Your task to perform on an android device: Open Google Maps and go to "Timeline" Image 0: 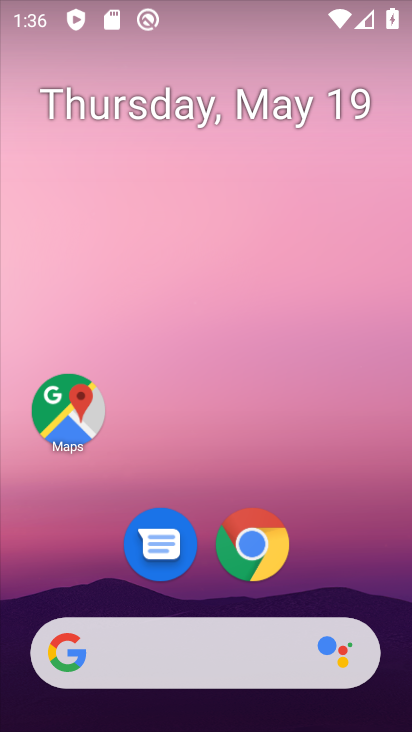
Step 0: drag from (308, 699) to (331, 267)
Your task to perform on an android device: Open Google Maps and go to "Timeline" Image 1: 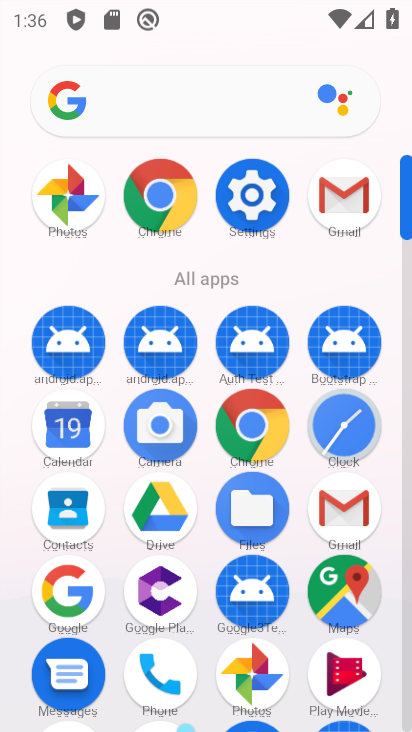
Step 1: click (328, 594)
Your task to perform on an android device: Open Google Maps and go to "Timeline" Image 2: 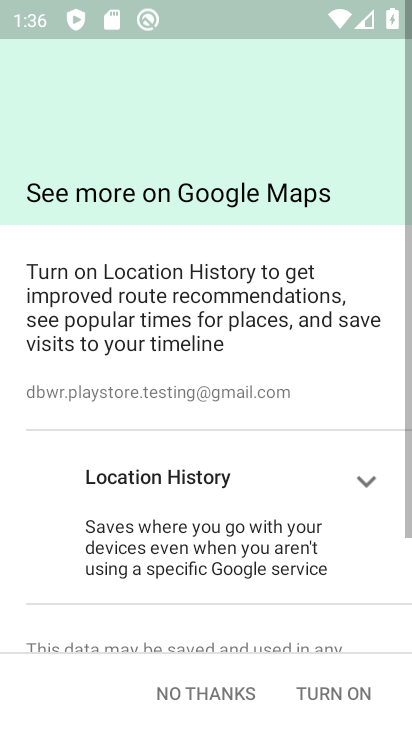
Step 2: click (47, 92)
Your task to perform on an android device: Open Google Maps and go to "Timeline" Image 3: 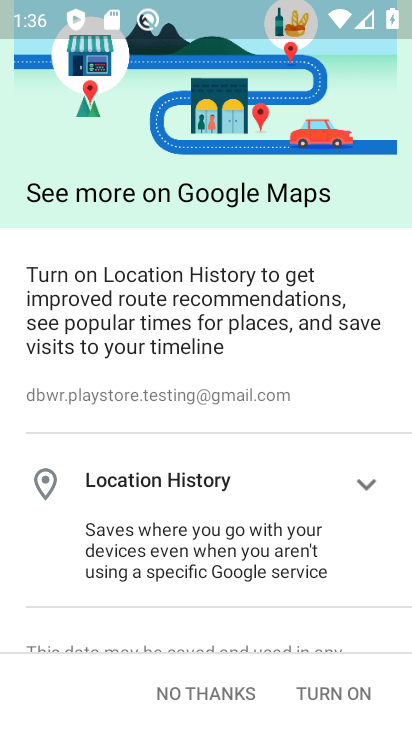
Step 3: click (185, 683)
Your task to perform on an android device: Open Google Maps and go to "Timeline" Image 4: 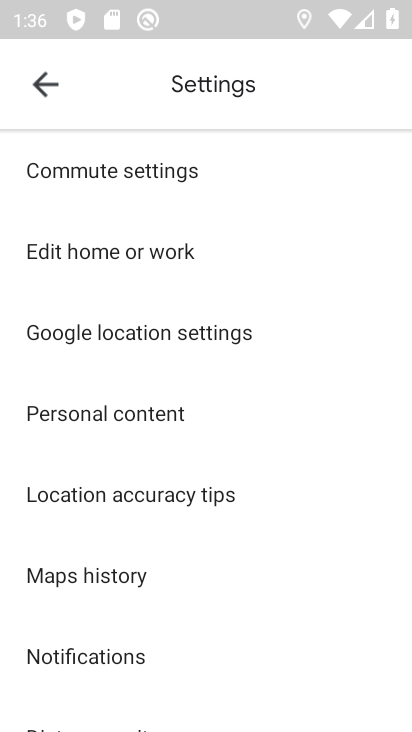
Step 4: click (45, 93)
Your task to perform on an android device: Open Google Maps and go to "Timeline" Image 5: 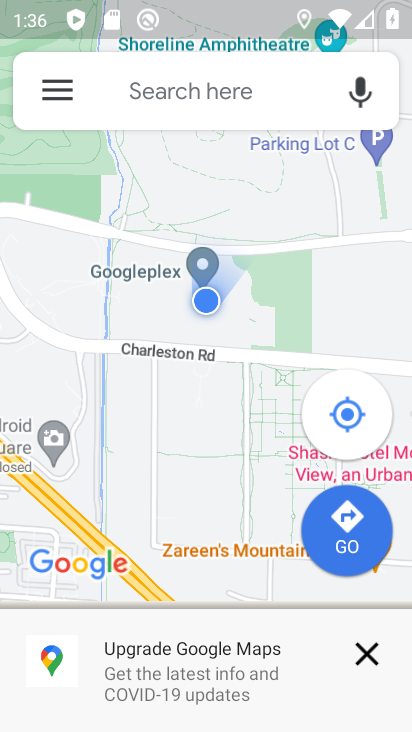
Step 5: click (55, 80)
Your task to perform on an android device: Open Google Maps and go to "Timeline" Image 6: 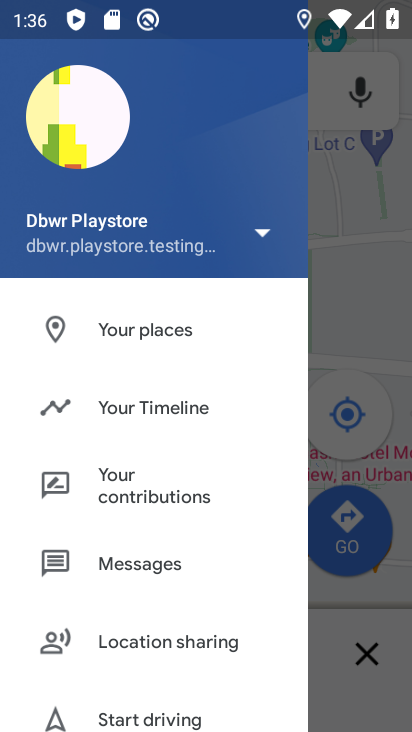
Step 6: click (132, 395)
Your task to perform on an android device: Open Google Maps and go to "Timeline" Image 7: 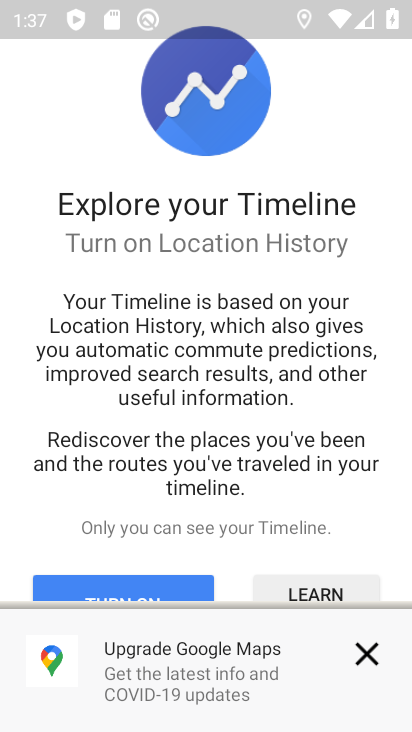
Step 7: click (375, 639)
Your task to perform on an android device: Open Google Maps and go to "Timeline" Image 8: 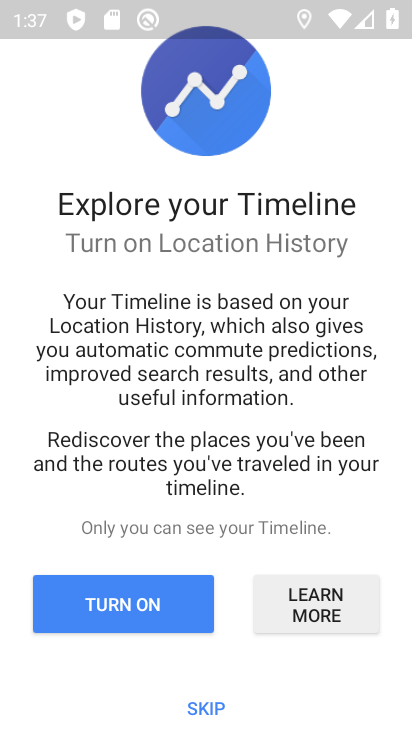
Step 8: click (207, 705)
Your task to perform on an android device: Open Google Maps and go to "Timeline" Image 9: 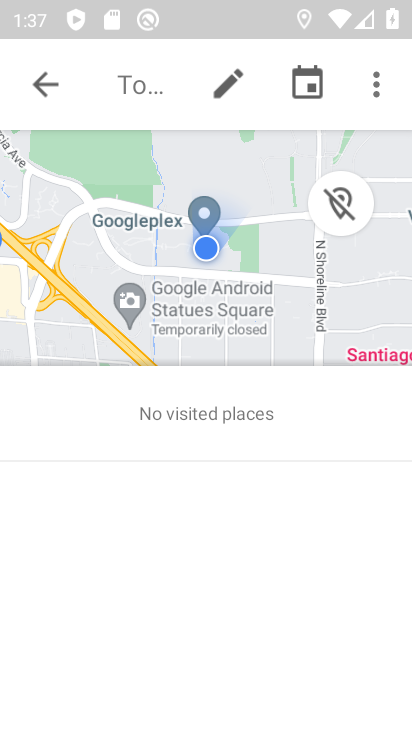
Step 9: task complete